Your task to perform on an android device: clear history in the chrome app Image 0: 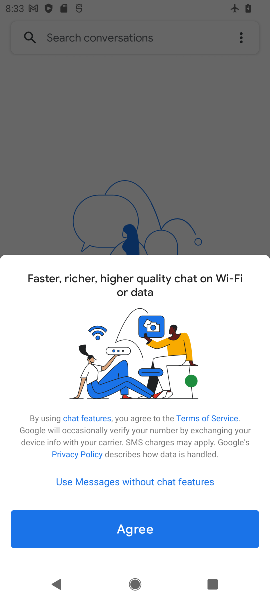
Step 0: press home button
Your task to perform on an android device: clear history in the chrome app Image 1: 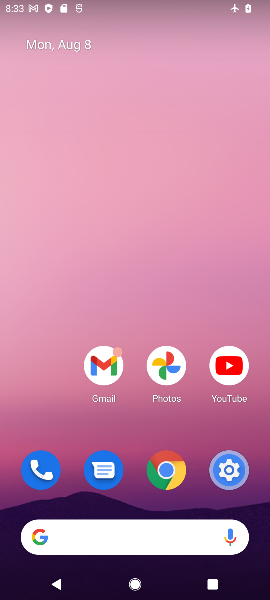
Step 1: drag from (126, 456) to (123, 281)
Your task to perform on an android device: clear history in the chrome app Image 2: 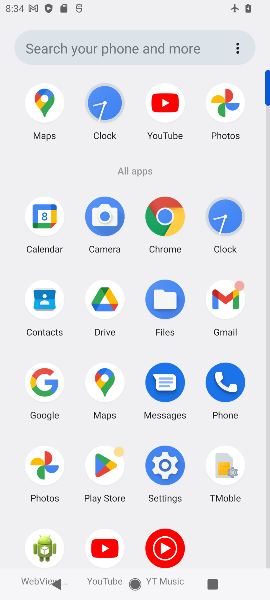
Step 2: click (153, 221)
Your task to perform on an android device: clear history in the chrome app Image 3: 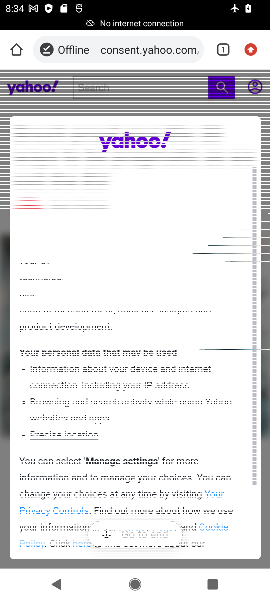
Step 3: click (250, 48)
Your task to perform on an android device: clear history in the chrome app Image 4: 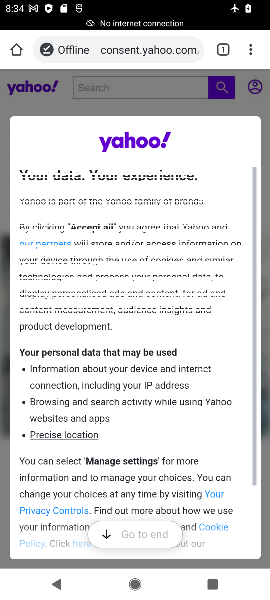
Step 4: click (256, 44)
Your task to perform on an android device: clear history in the chrome app Image 5: 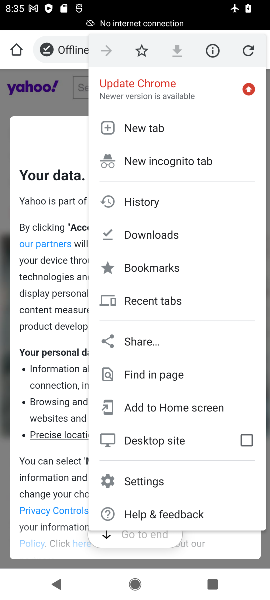
Step 5: click (135, 196)
Your task to perform on an android device: clear history in the chrome app Image 6: 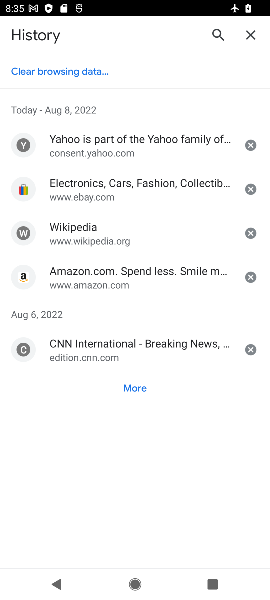
Step 6: click (45, 72)
Your task to perform on an android device: clear history in the chrome app Image 7: 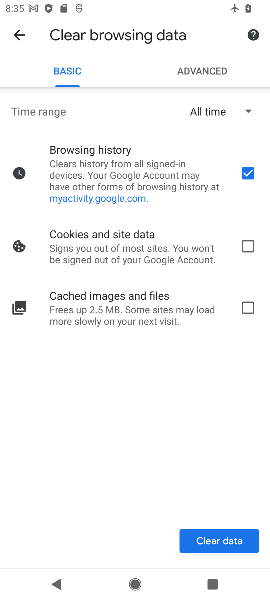
Step 7: click (248, 301)
Your task to perform on an android device: clear history in the chrome app Image 8: 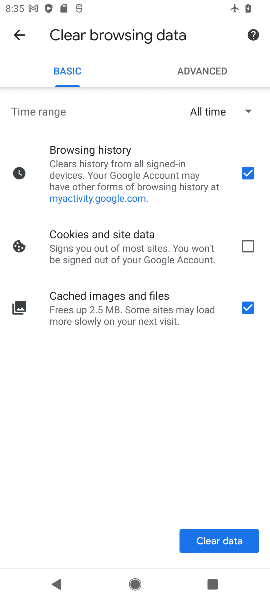
Step 8: click (248, 246)
Your task to perform on an android device: clear history in the chrome app Image 9: 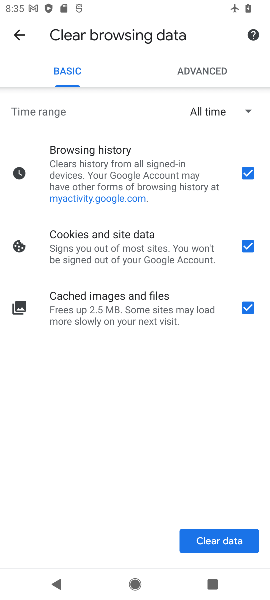
Step 9: click (235, 540)
Your task to perform on an android device: clear history in the chrome app Image 10: 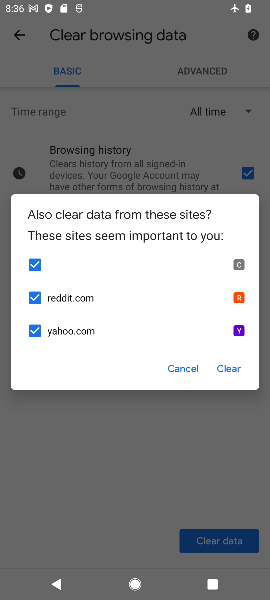
Step 10: click (234, 369)
Your task to perform on an android device: clear history in the chrome app Image 11: 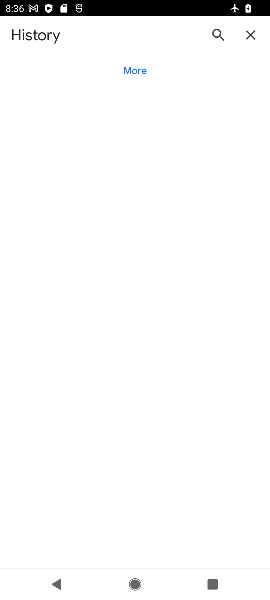
Step 11: task complete